Your task to perform on an android device: When is my next appointment? Image 0: 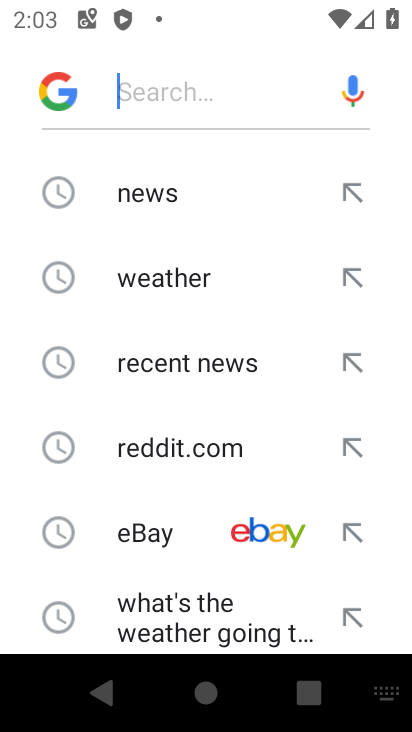
Step 0: press home button
Your task to perform on an android device: When is my next appointment? Image 1: 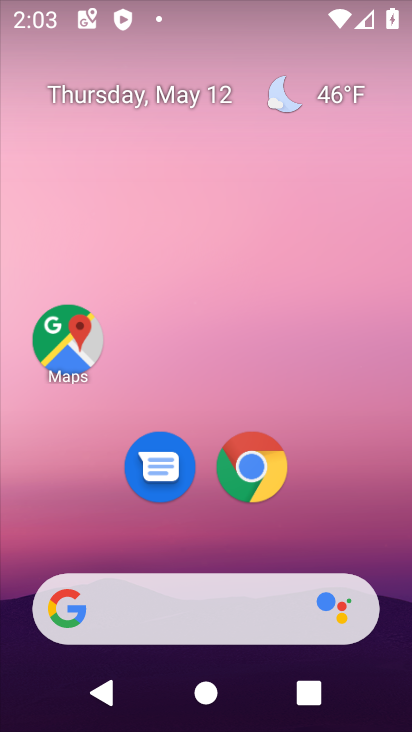
Step 1: drag from (312, 433) to (300, 224)
Your task to perform on an android device: When is my next appointment? Image 2: 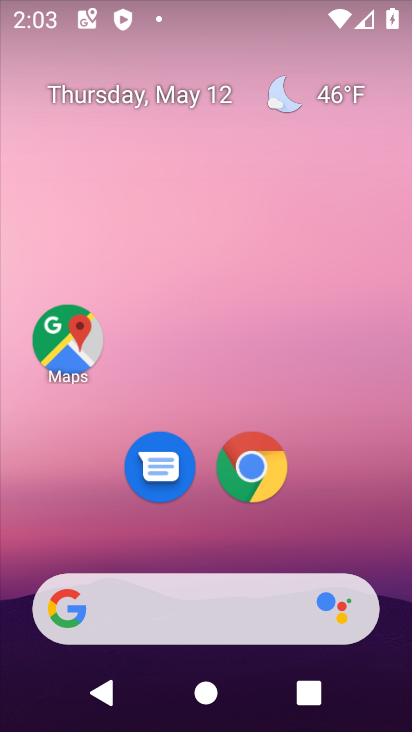
Step 2: drag from (351, 536) to (327, 57)
Your task to perform on an android device: When is my next appointment? Image 3: 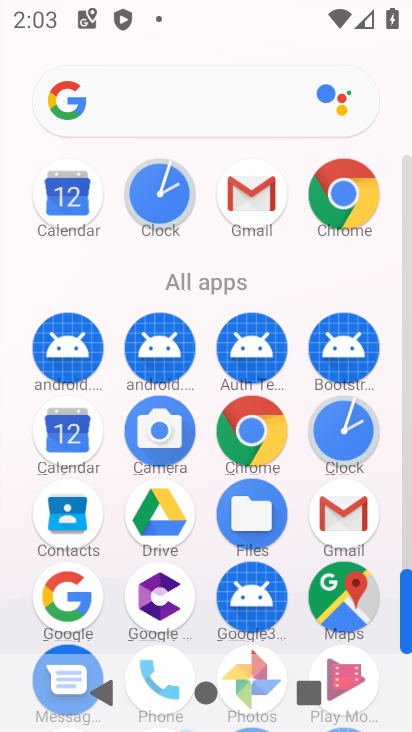
Step 3: click (72, 448)
Your task to perform on an android device: When is my next appointment? Image 4: 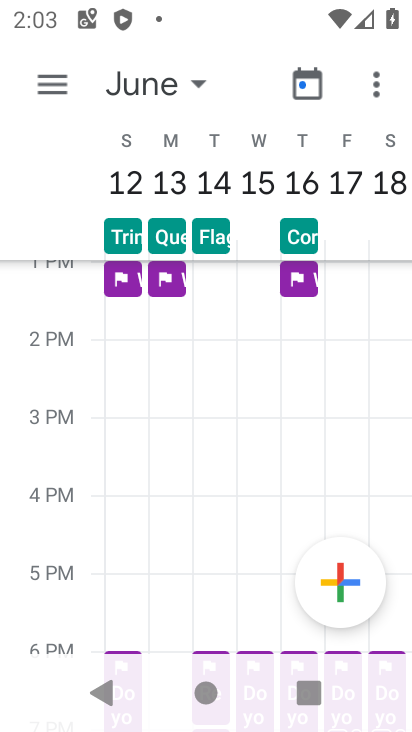
Step 4: task complete